Your task to perform on an android device: turn off translation in the chrome app Image 0: 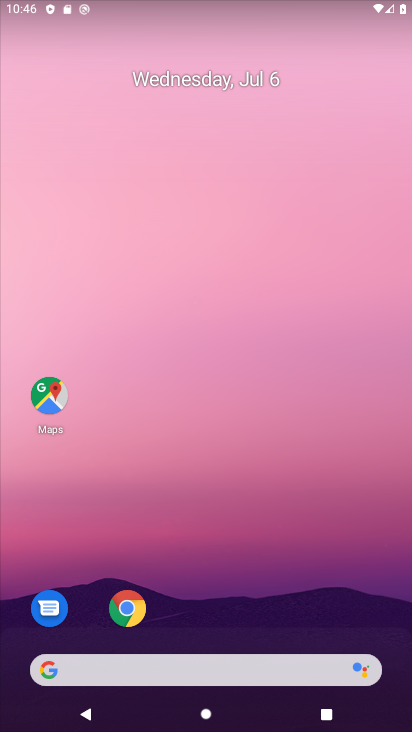
Step 0: click (125, 616)
Your task to perform on an android device: turn off translation in the chrome app Image 1: 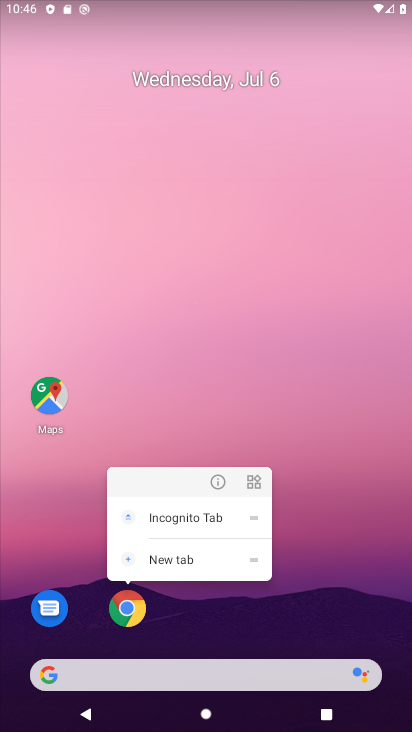
Step 1: click (118, 611)
Your task to perform on an android device: turn off translation in the chrome app Image 2: 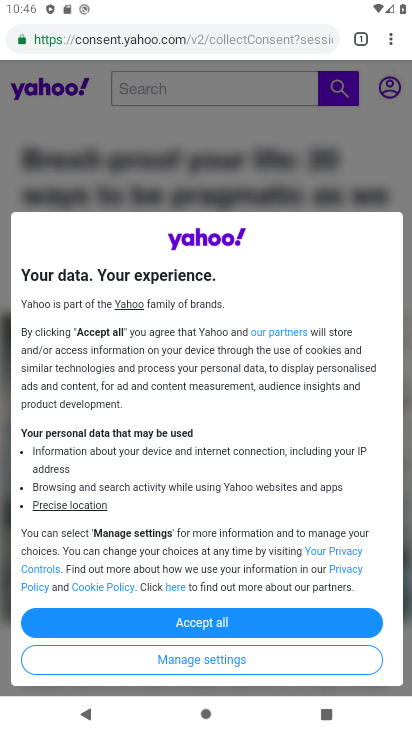
Step 2: click (389, 36)
Your task to perform on an android device: turn off translation in the chrome app Image 3: 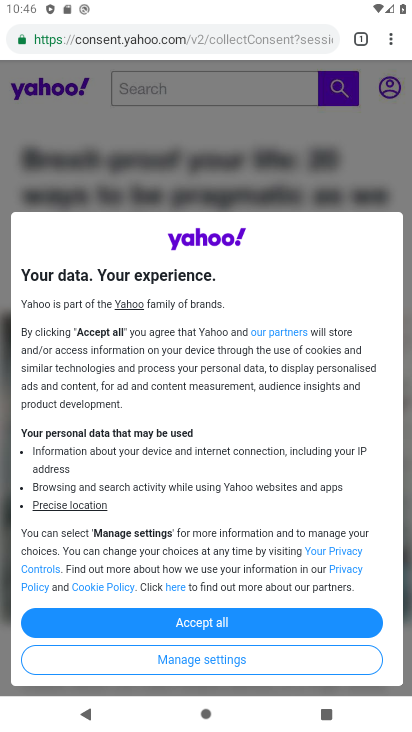
Step 3: click (395, 39)
Your task to perform on an android device: turn off translation in the chrome app Image 4: 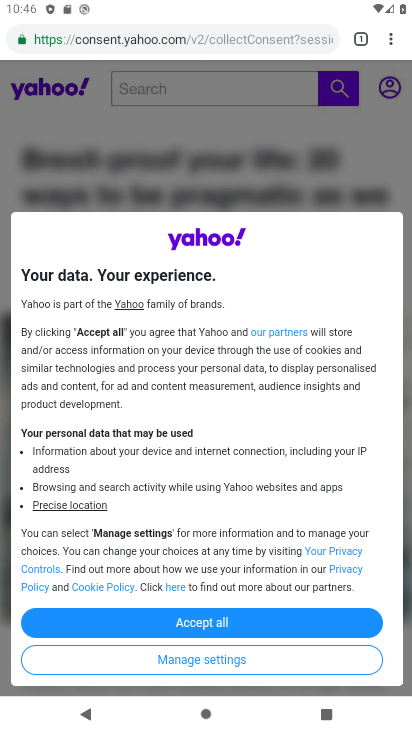
Step 4: click (391, 39)
Your task to perform on an android device: turn off translation in the chrome app Image 5: 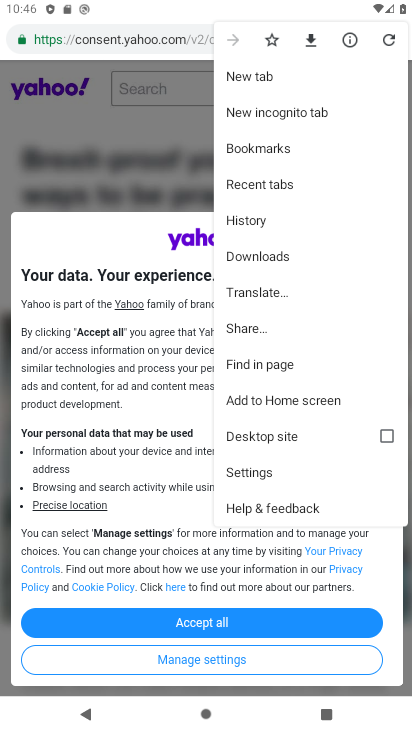
Step 5: click (256, 476)
Your task to perform on an android device: turn off translation in the chrome app Image 6: 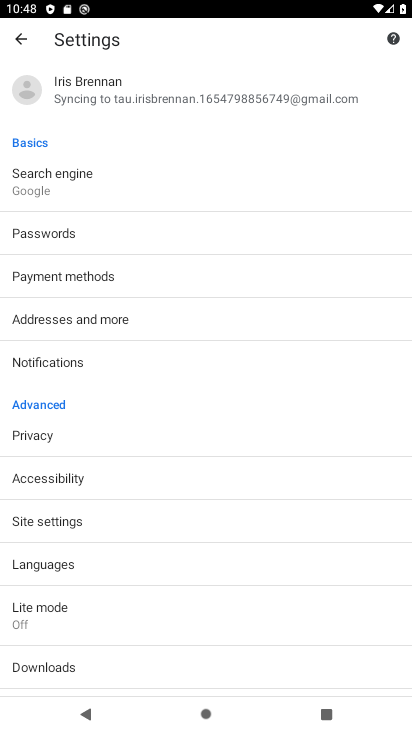
Step 6: click (17, 565)
Your task to perform on an android device: turn off translation in the chrome app Image 7: 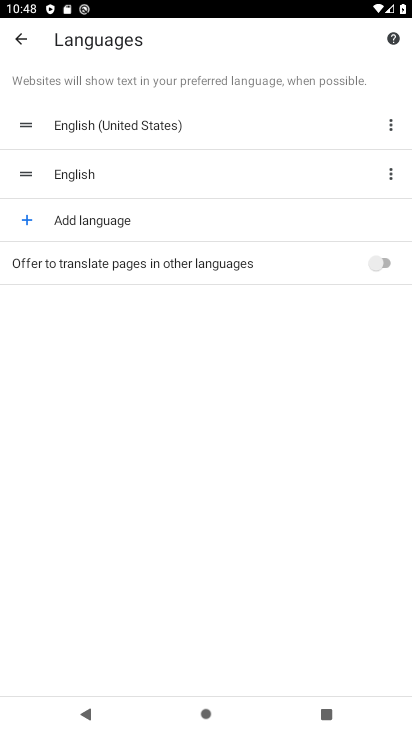
Step 7: task complete